Your task to perform on an android device: Go to internet settings Image 0: 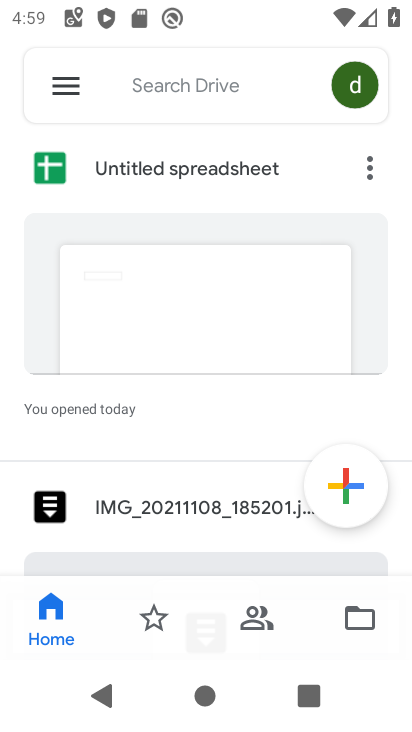
Step 0: press home button
Your task to perform on an android device: Go to internet settings Image 1: 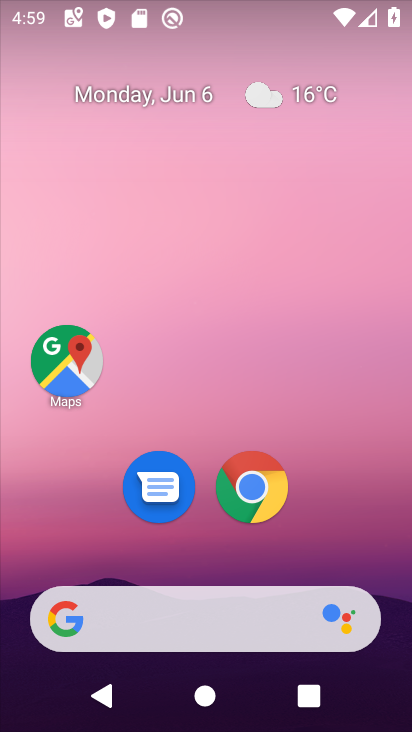
Step 1: drag from (212, 415) to (251, 0)
Your task to perform on an android device: Go to internet settings Image 2: 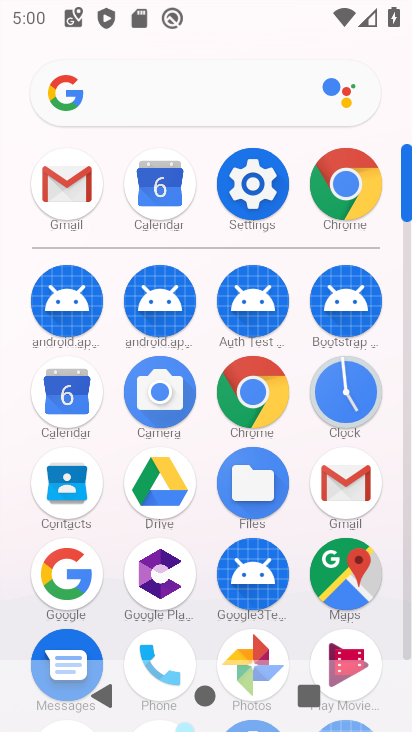
Step 2: click (240, 180)
Your task to perform on an android device: Go to internet settings Image 3: 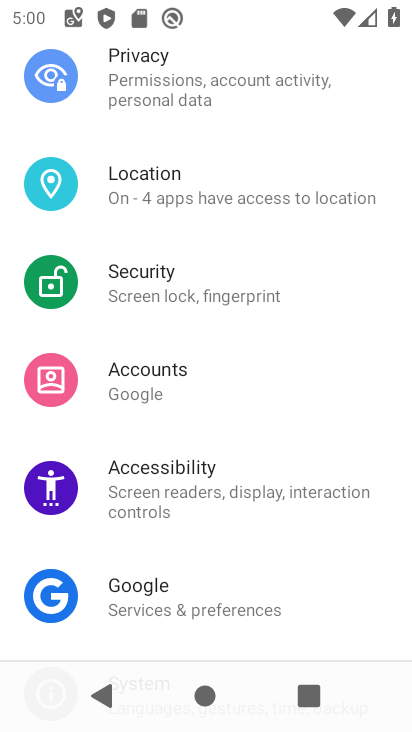
Step 3: drag from (239, 272) to (217, 636)
Your task to perform on an android device: Go to internet settings Image 4: 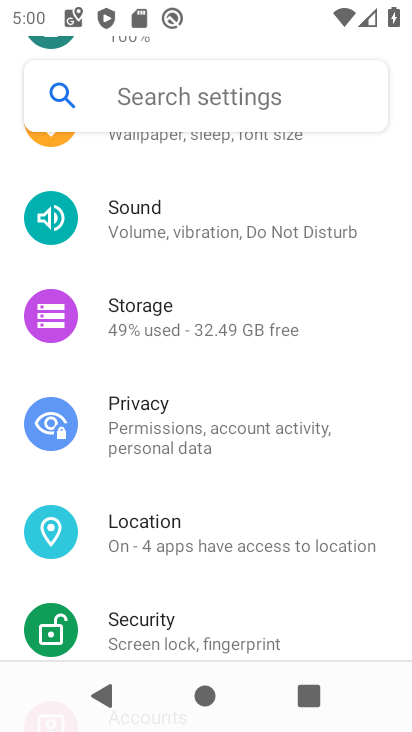
Step 4: drag from (245, 265) to (232, 646)
Your task to perform on an android device: Go to internet settings Image 5: 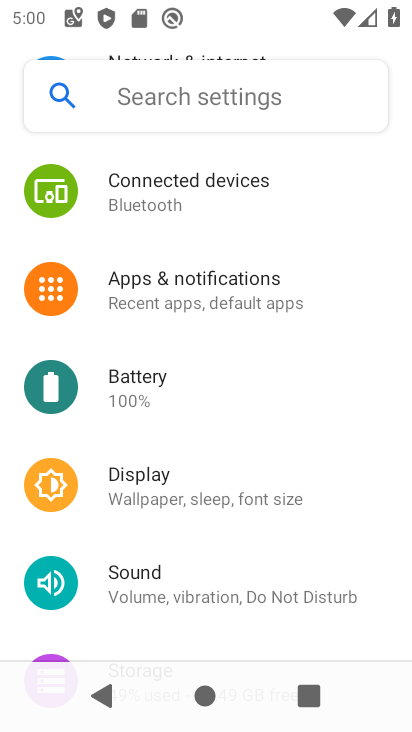
Step 5: drag from (237, 388) to (228, 650)
Your task to perform on an android device: Go to internet settings Image 6: 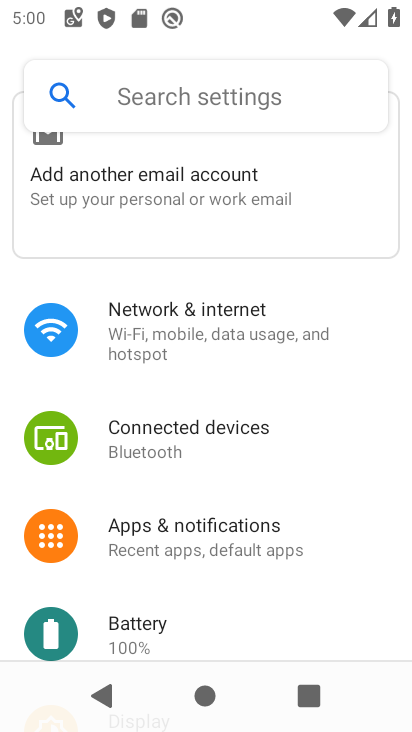
Step 6: click (212, 334)
Your task to perform on an android device: Go to internet settings Image 7: 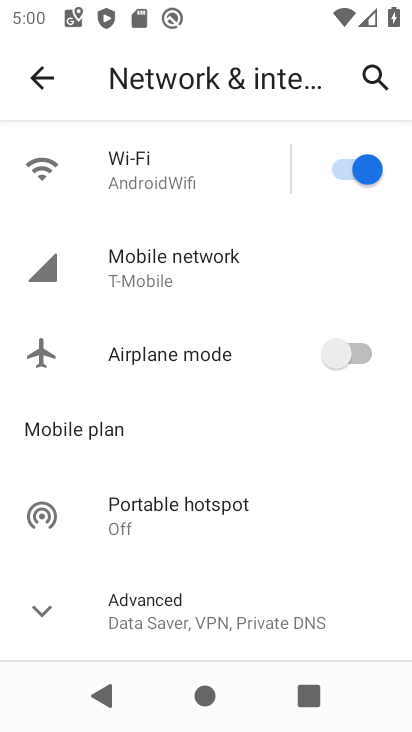
Step 7: task complete